Your task to perform on an android device: clear history in the chrome app Image 0: 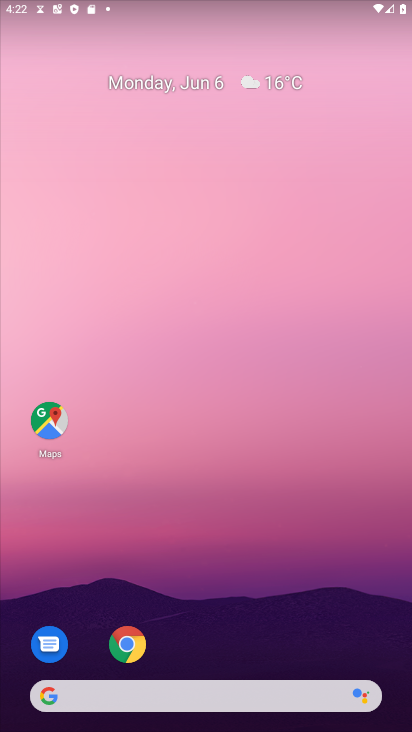
Step 0: click (126, 654)
Your task to perform on an android device: clear history in the chrome app Image 1: 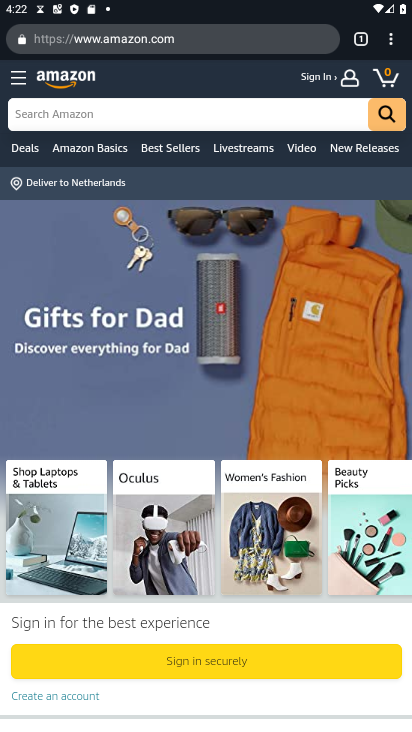
Step 1: click (389, 46)
Your task to perform on an android device: clear history in the chrome app Image 2: 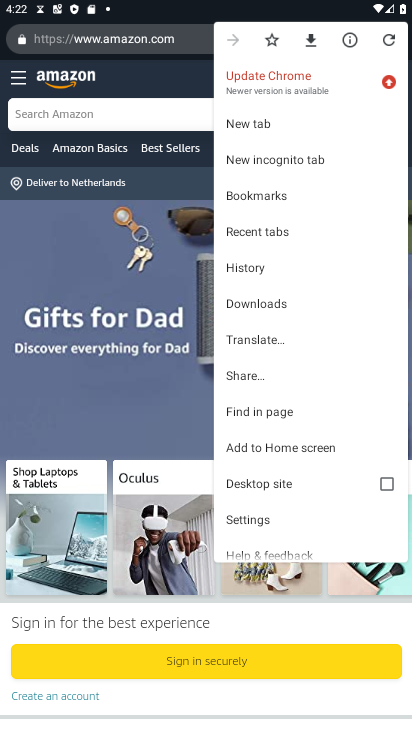
Step 2: click (226, 271)
Your task to perform on an android device: clear history in the chrome app Image 3: 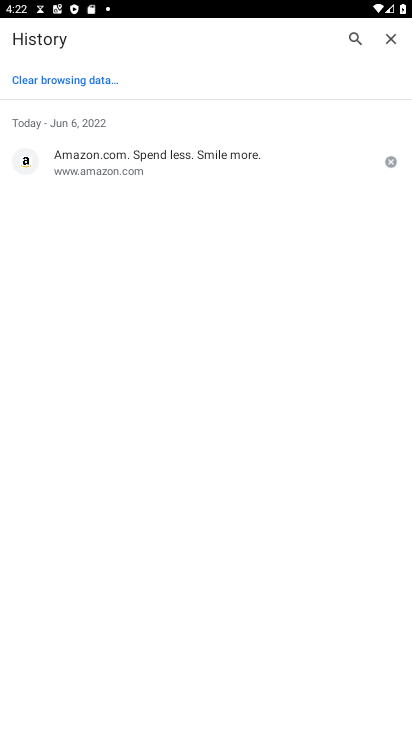
Step 3: click (72, 86)
Your task to perform on an android device: clear history in the chrome app Image 4: 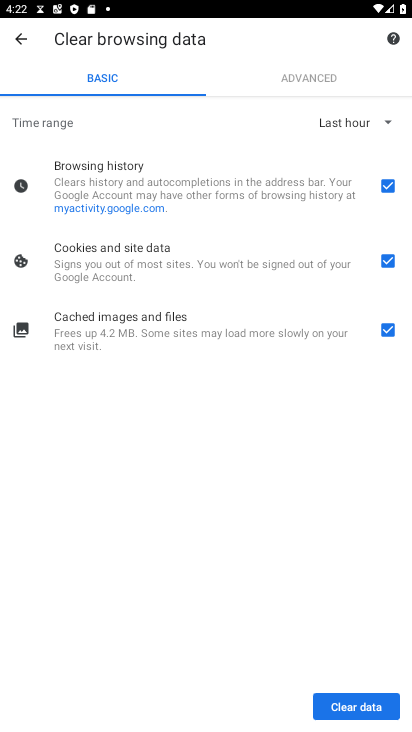
Step 4: click (384, 194)
Your task to perform on an android device: clear history in the chrome app Image 5: 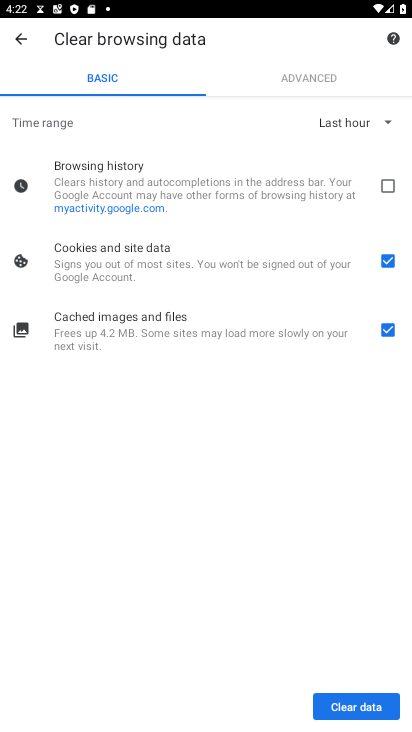
Step 5: click (389, 261)
Your task to perform on an android device: clear history in the chrome app Image 6: 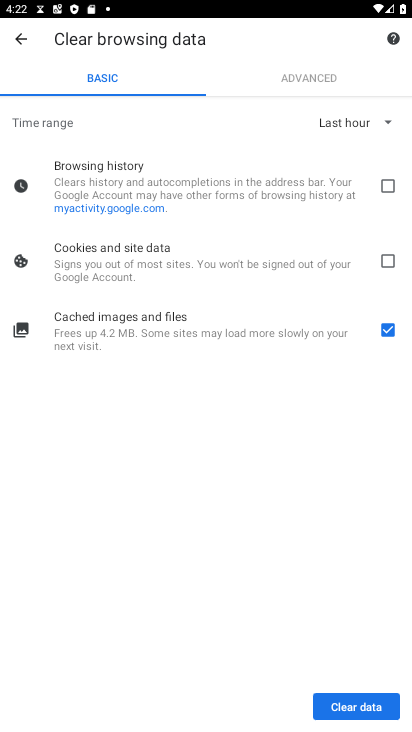
Step 6: click (386, 333)
Your task to perform on an android device: clear history in the chrome app Image 7: 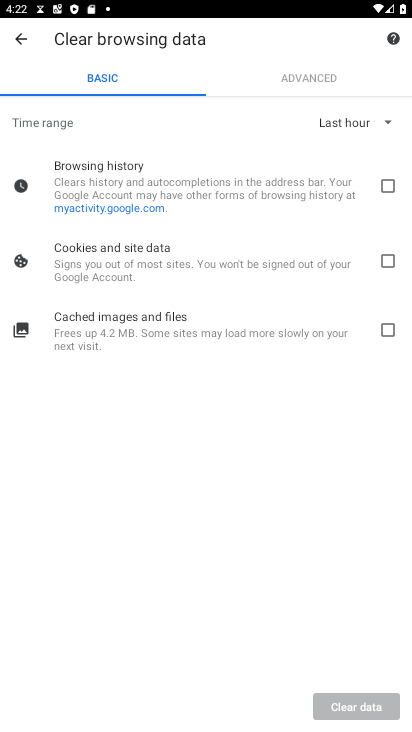
Step 7: click (390, 188)
Your task to perform on an android device: clear history in the chrome app Image 8: 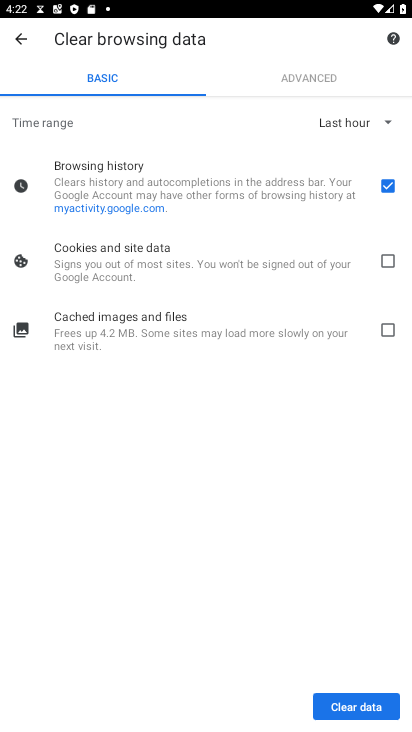
Step 8: click (382, 117)
Your task to perform on an android device: clear history in the chrome app Image 9: 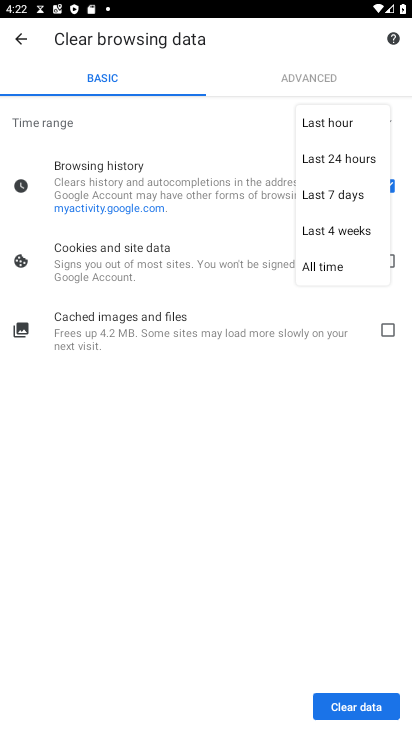
Step 9: click (342, 270)
Your task to perform on an android device: clear history in the chrome app Image 10: 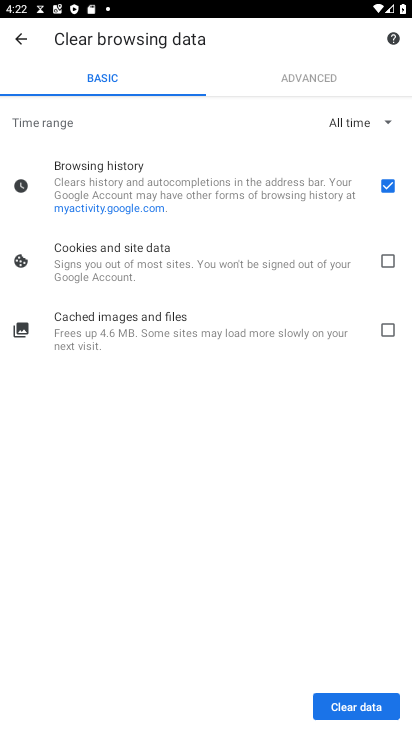
Step 10: click (367, 717)
Your task to perform on an android device: clear history in the chrome app Image 11: 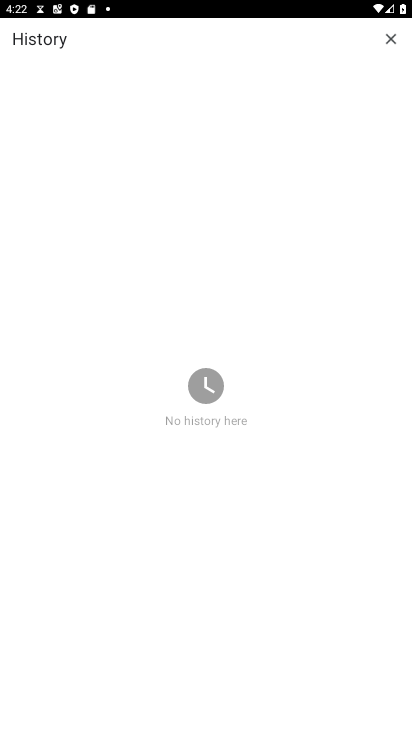
Step 11: task complete